Your task to perform on an android device: Open ESPN.com Image 0: 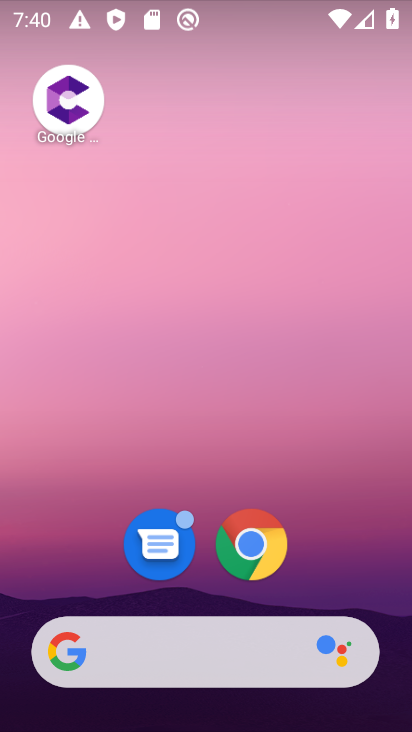
Step 0: click (248, 548)
Your task to perform on an android device: Open ESPN.com Image 1: 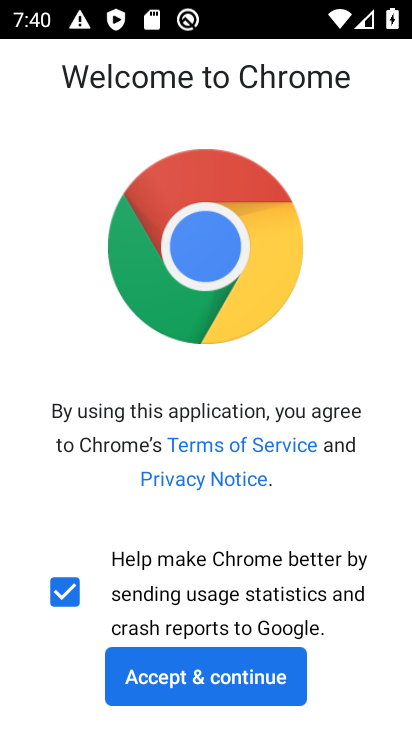
Step 1: click (189, 679)
Your task to perform on an android device: Open ESPN.com Image 2: 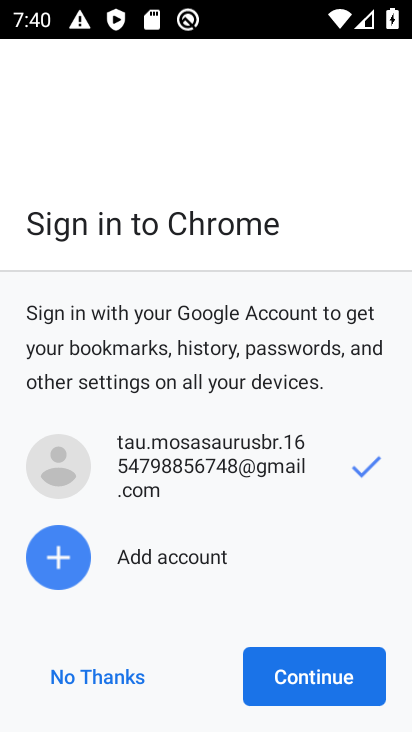
Step 2: click (289, 660)
Your task to perform on an android device: Open ESPN.com Image 3: 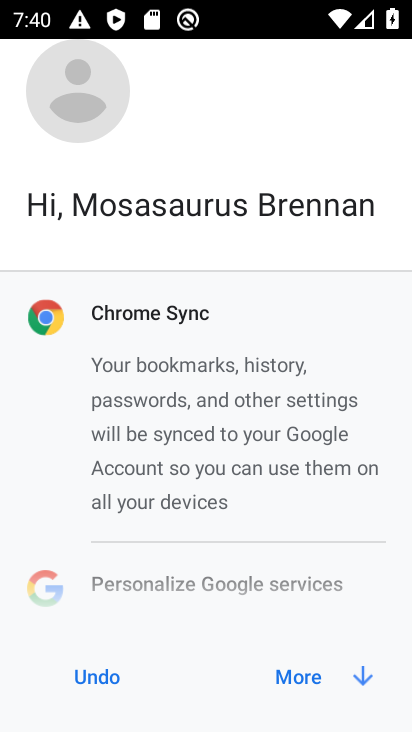
Step 3: click (303, 688)
Your task to perform on an android device: Open ESPN.com Image 4: 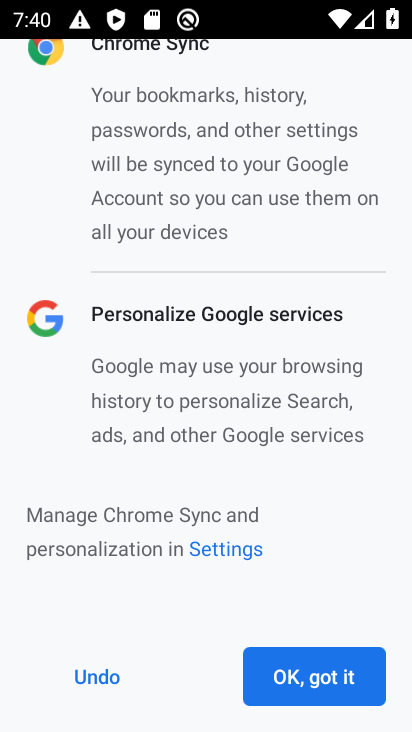
Step 4: click (294, 686)
Your task to perform on an android device: Open ESPN.com Image 5: 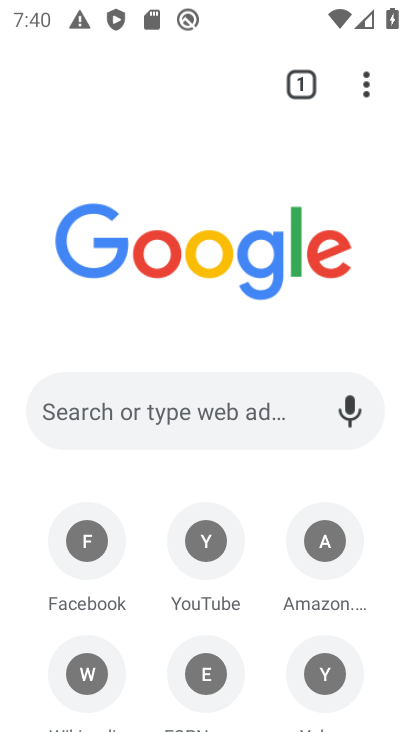
Step 5: click (178, 394)
Your task to perform on an android device: Open ESPN.com Image 6: 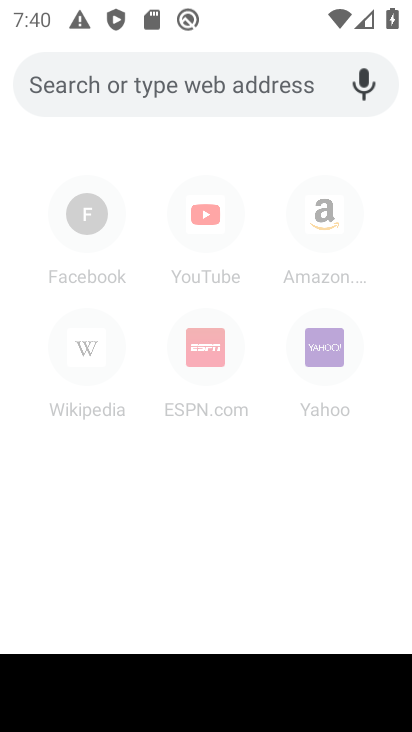
Step 6: type "ESPN.com"
Your task to perform on an android device: Open ESPN.com Image 7: 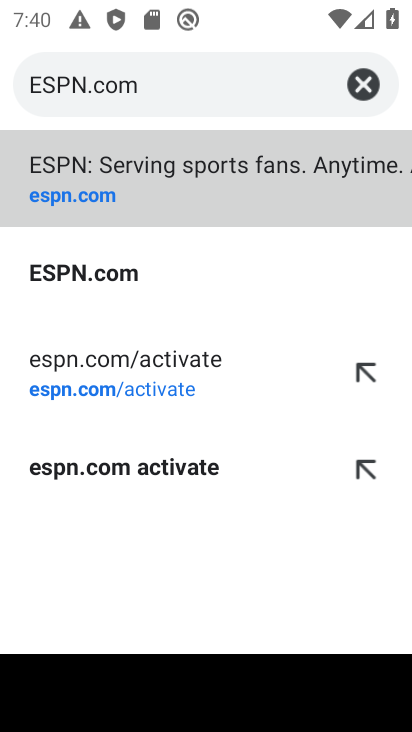
Step 7: click (110, 289)
Your task to perform on an android device: Open ESPN.com Image 8: 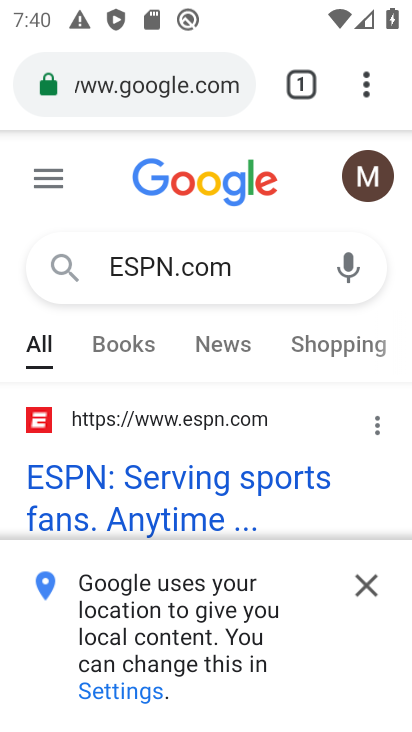
Step 8: click (355, 593)
Your task to perform on an android device: Open ESPN.com Image 9: 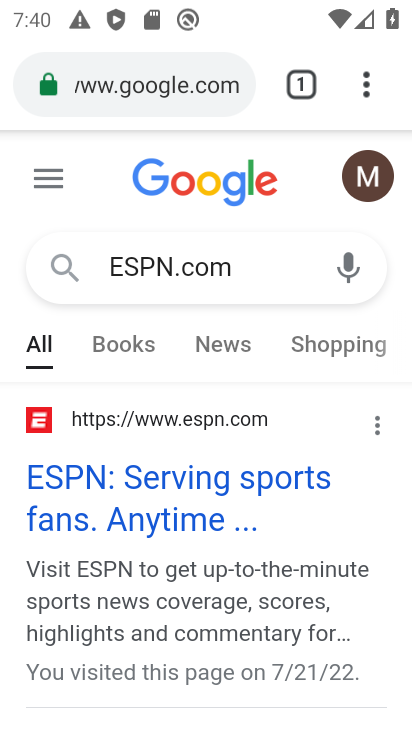
Step 9: task complete